Your task to perform on an android device: Open notification settings Image 0: 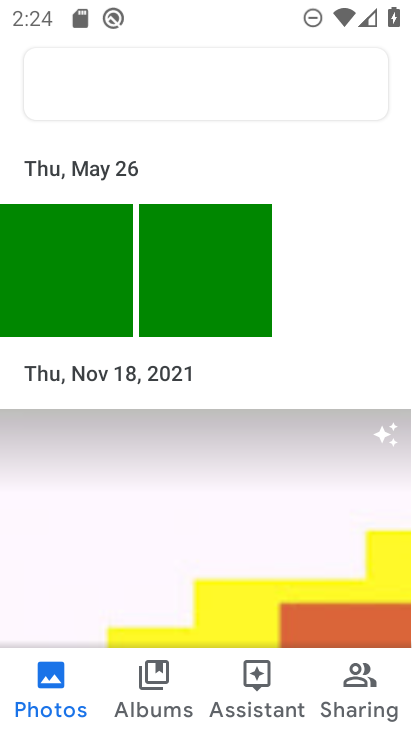
Step 0: press home button
Your task to perform on an android device: Open notification settings Image 1: 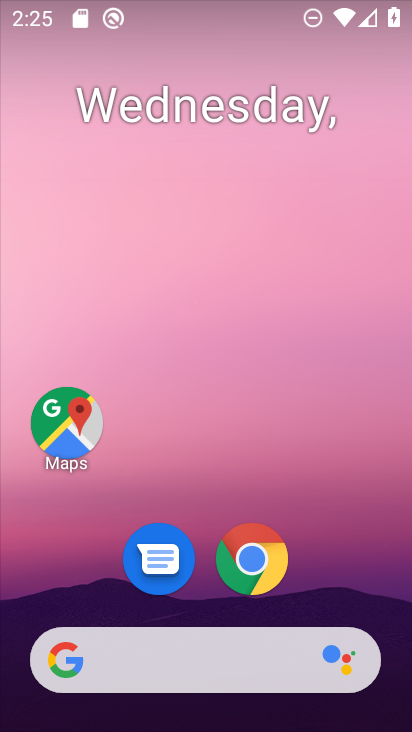
Step 1: drag from (371, 475) to (336, 114)
Your task to perform on an android device: Open notification settings Image 2: 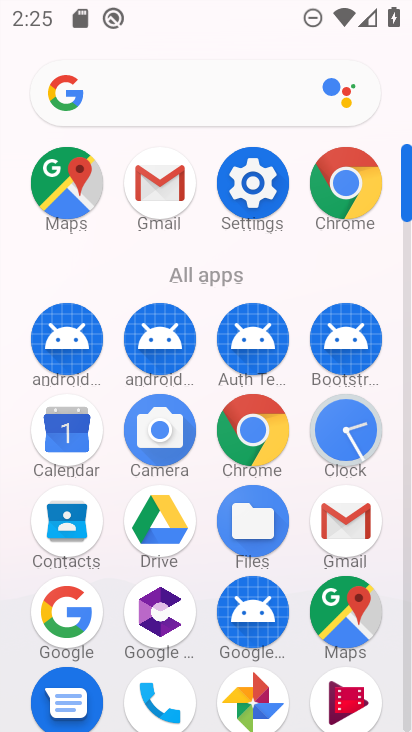
Step 2: click (240, 208)
Your task to perform on an android device: Open notification settings Image 3: 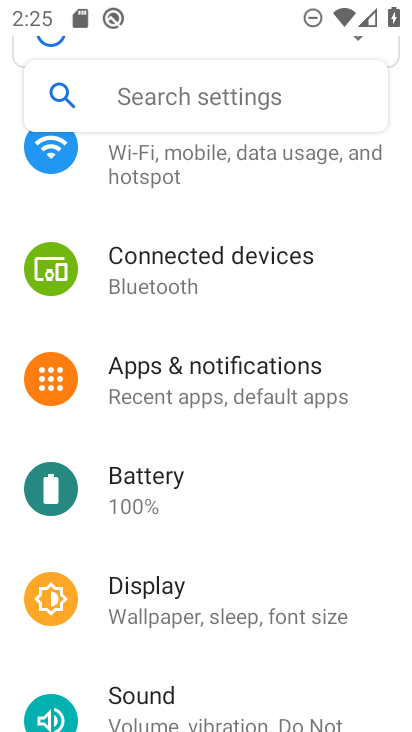
Step 3: click (213, 378)
Your task to perform on an android device: Open notification settings Image 4: 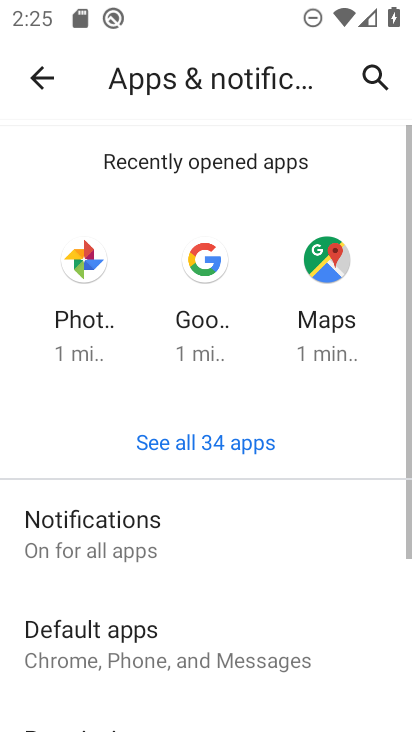
Step 4: task complete